Your task to perform on an android device: Check the weather Image 0: 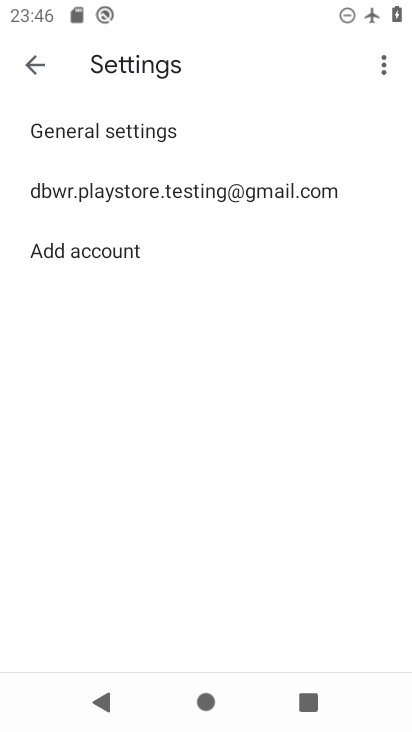
Step 0: press home button
Your task to perform on an android device: Check the weather Image 1: 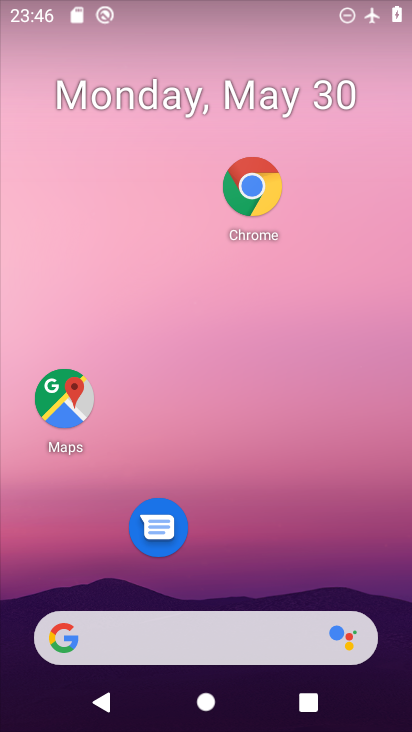
Step 1: drag from (238, 593) to (275, 259)
Your task to perform on an android device: Check the weather Image 2: 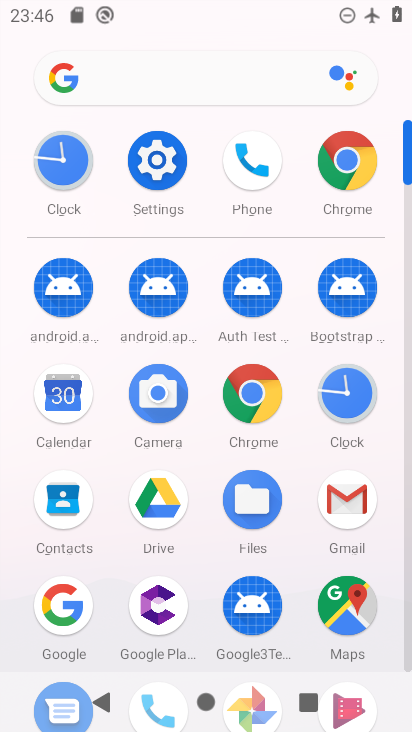
Step 2: click (240, 380)
Your task to perform on an android device: Check the weather Image 3: 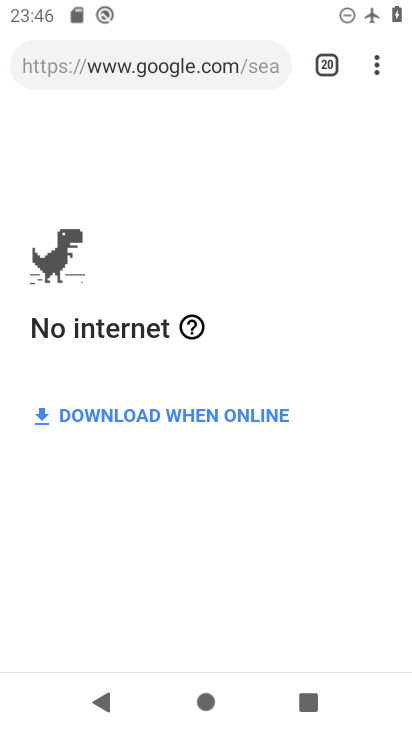
Step 3: click (370, 60)
Your task to perform on an android device: Check the weather Image 4: 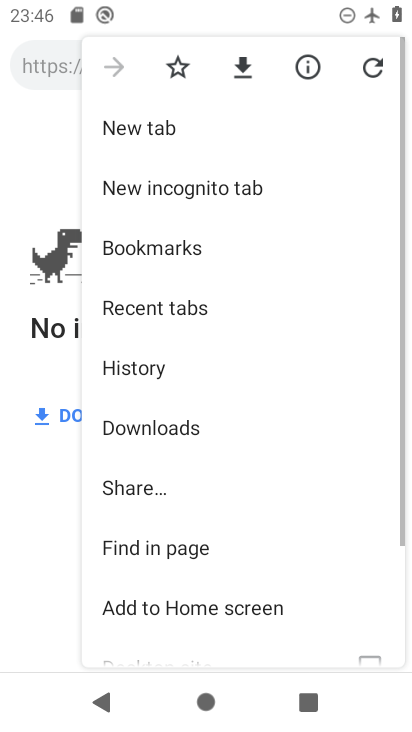
Step 4: click (148, 128)
Your task to perform on an android device: Check the weather Image 5: 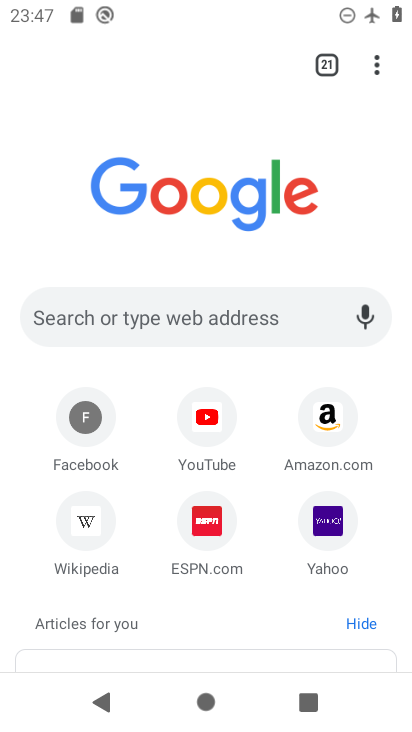
Step 5: click (169, 315)
Your task to perform on an android device: Check the weather Image 6: 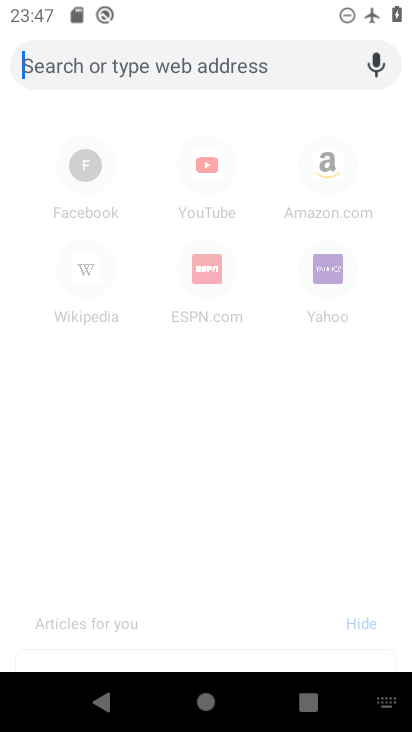
Step 6: type "Check the weather"
Your task to perform on an android device: Check the weather Image 7: 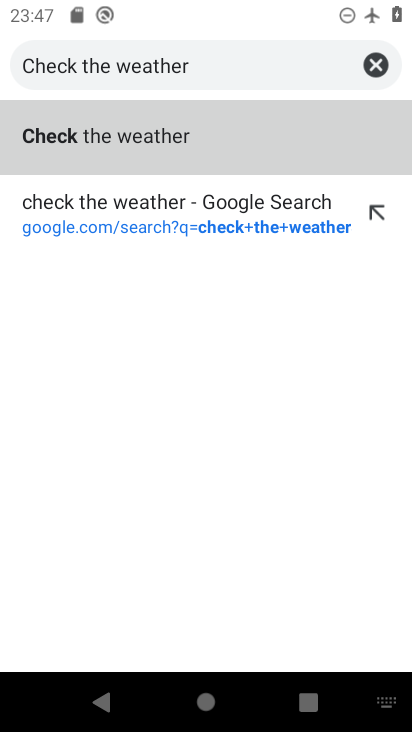
Step 7: click (171, 141)
Your task to perform on an android device: Check the weather Image 8: 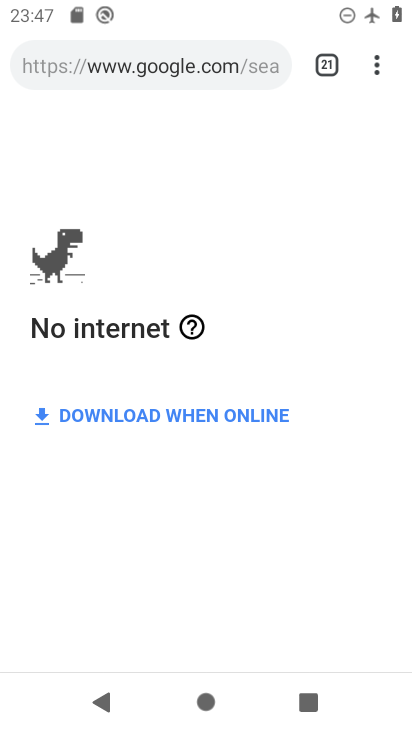
Step 8: task complete